Your task to perform on an android device: turn notification dots off Image 0: 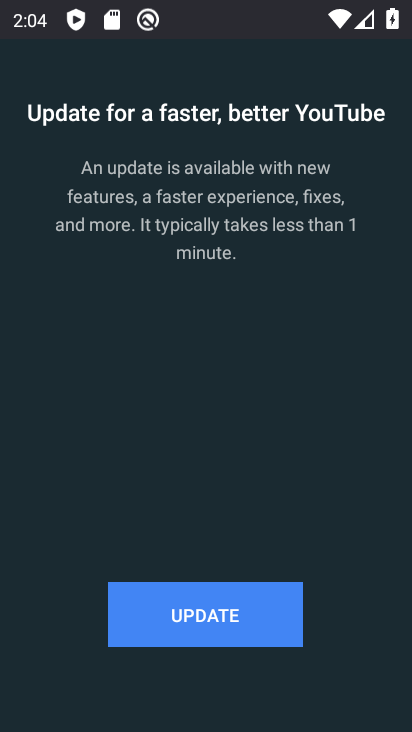
Step 0: press home button
Your task to perform on an android device: turn notification dots off Image 1: 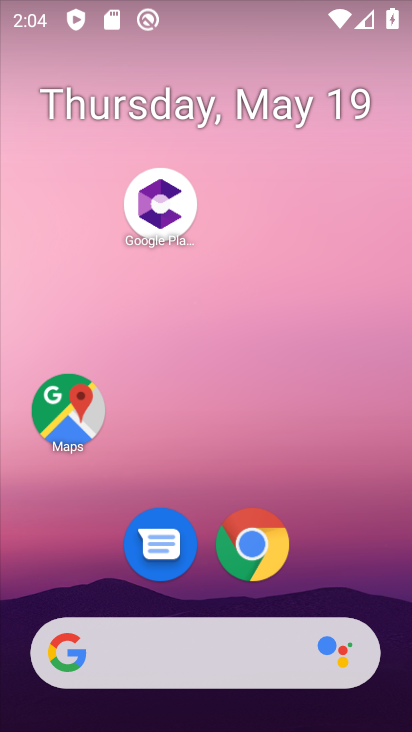
Step 1: drag from (258, 695) to (326, 231)
Your task to perform on an android device: turn notification dots off Image 2: 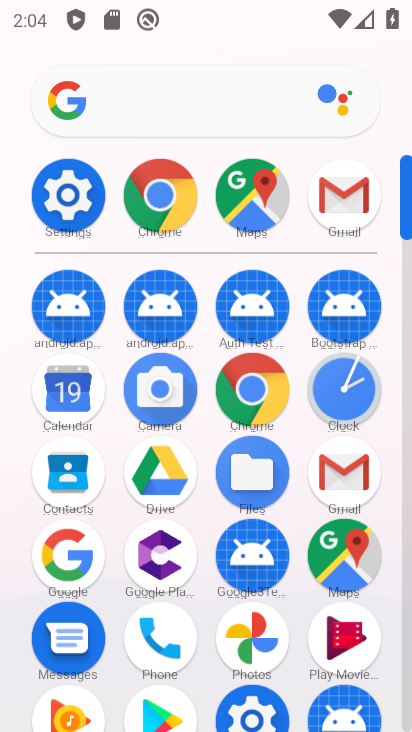
Step 2: click (238, 707)
Your task to perform on an android device: turn notification dots off Image 3: 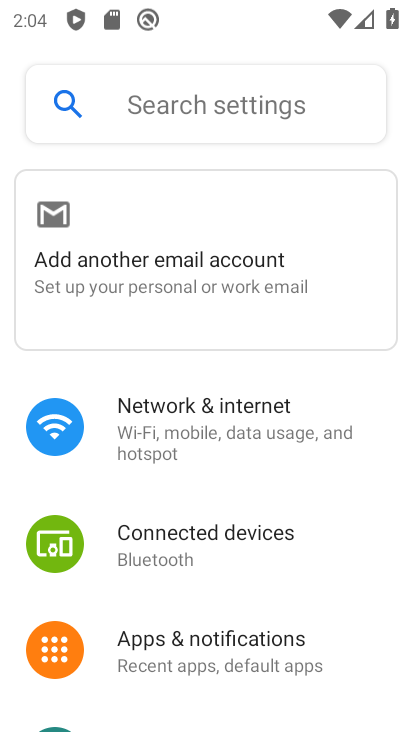
Step 3: click (228, 89)
Your task to perform on an android device: turn notification dots off Image 4: 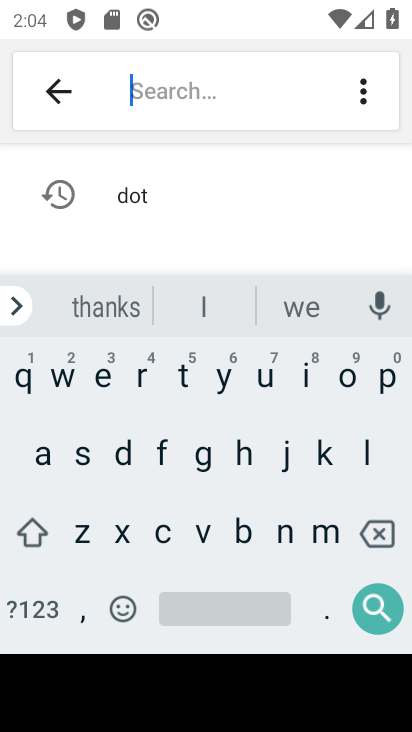
Step 4: click (121, 452)
Your task to perform on an android device: turn notification dots off Image 5: 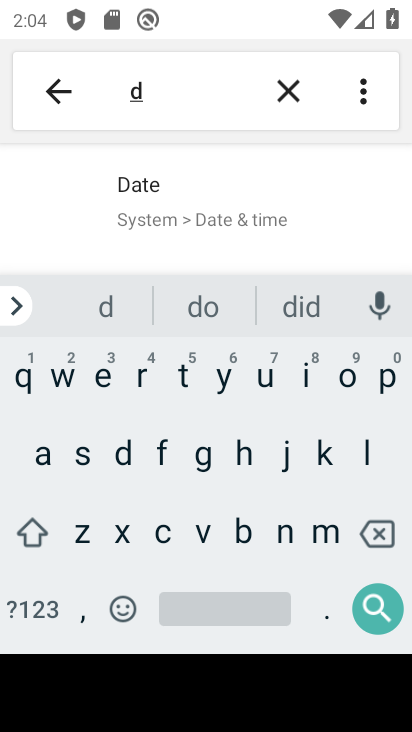
Step 5: click (346, 387)
Your task to perform on an android device: turn notification dots off Image 6: 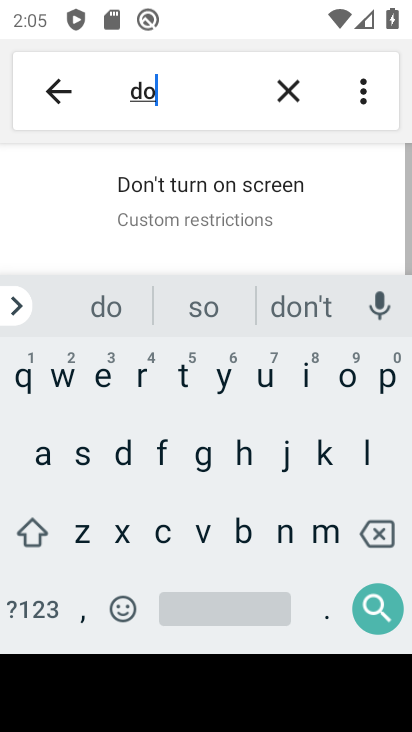
Step 6: click (182, 374)
Your task to perform on an android device: turn notification dots off Image 7: 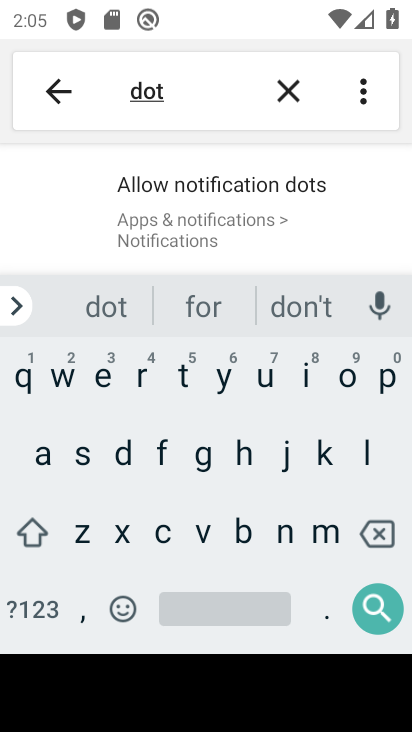
Step 7: click (199, 203)
Your task to perform on an android device: turn notification dots off Image 8: 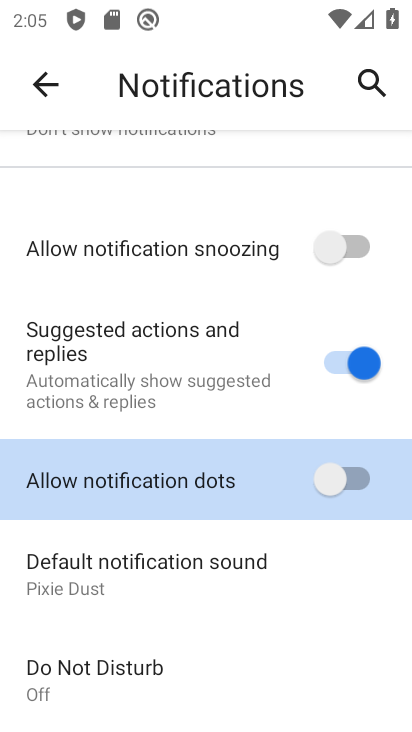
Step 8: click (325, 463)
Your task to perform on an android device: turn notification dots off Image 9: 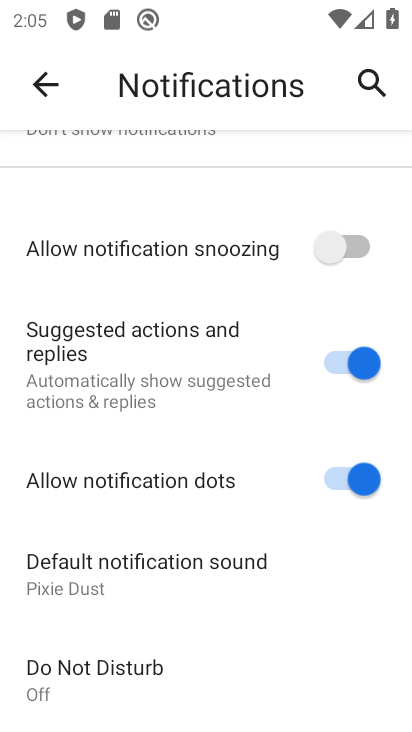
Step 9: task complete